Your task to perform on an android device: turn on notifications settings in the gmail app Image 0: 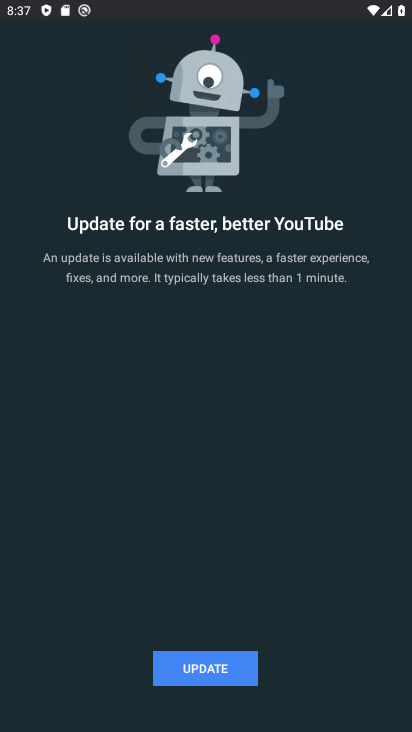
Step 0: press back button
Your task to perform on an android device: turn on notifications settings in the gmail app Image 1: 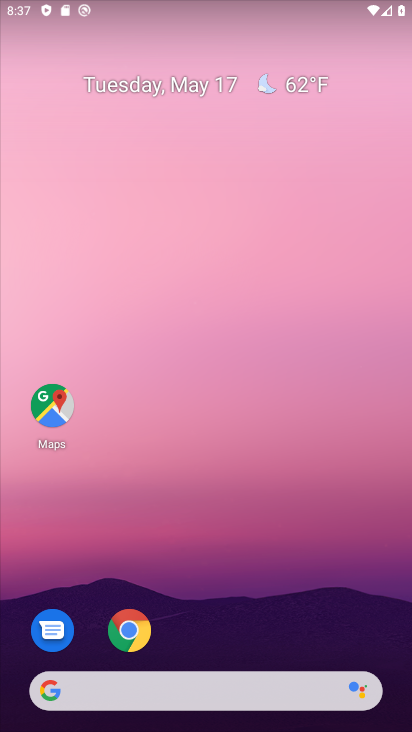
Step 1: drag from (185, 662) to (336, 212)
Your task to perform on an android device: turn on notifications settings in the gmail app Image 2: 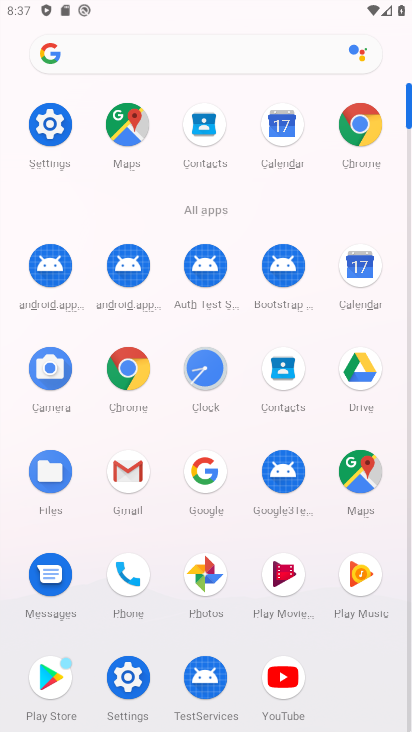
Step 2: drag from (161, 590) to (225, 429)
Your task to perform on an android device: turn on notifications settings in the gmail app Image 3: 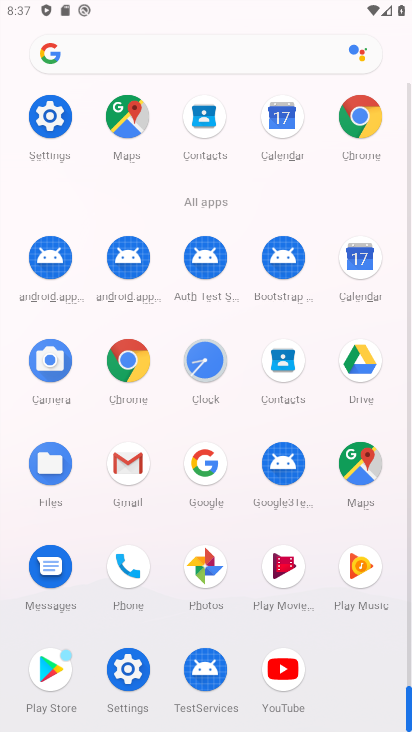
Step 3: click (137, 472)
Your task to perform on an android device: turn on notifications settings in the gmail app Image 4: 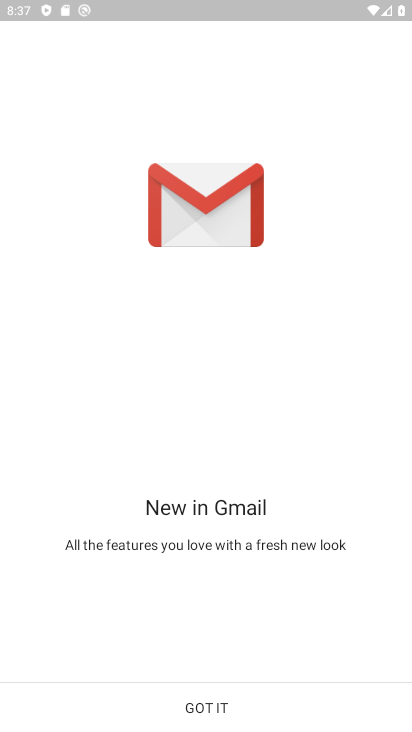
Step 4: click (211, 717)
Your task to perform on an android device: turn on notifications settings in the gmail app Image 5: 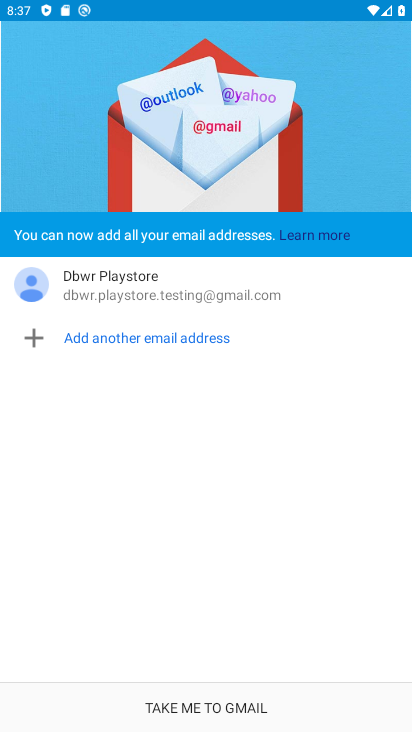
Step 5: click (211, 717)
Your task to perform on an android device: turn on notifications settings in the gmail app Image 6: 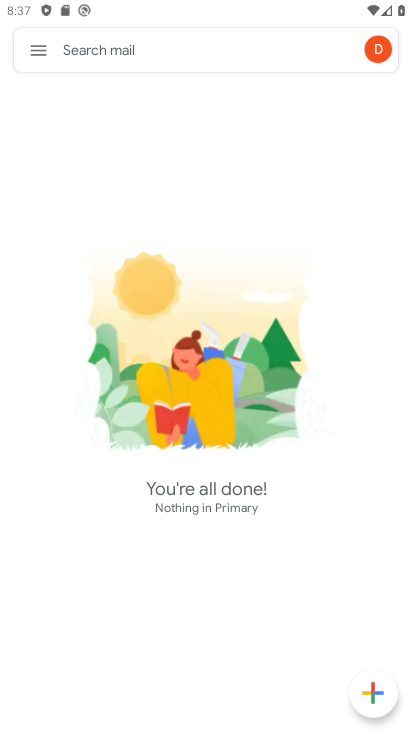
Step 6: click (48, 51)
Your task to perform on an android device: turn on notifications settings in the gmail app Image 7: 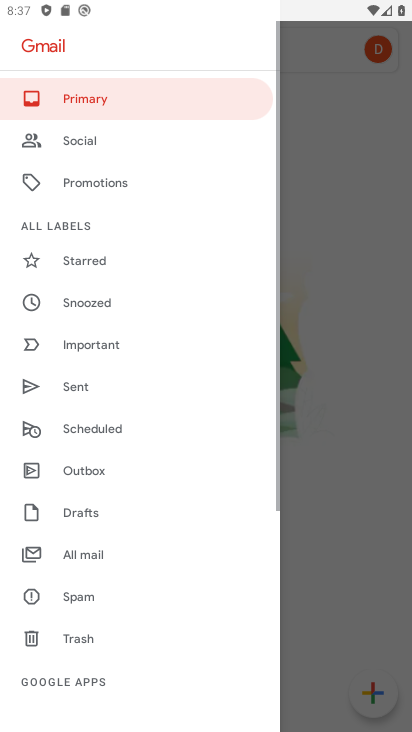
Step 7: drag from (140, 616) to (216, 335)
Your task to perform on an android device: turn on notifications settings in the gmail app Image 8: 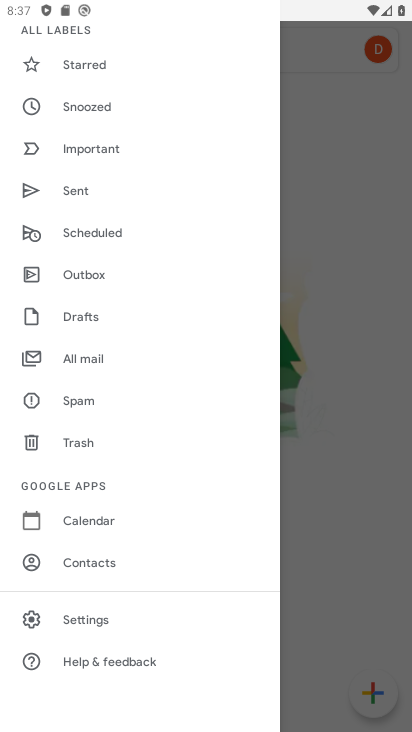
Step 8: click (121, 630)
Your task to perform on an android device: turn on notifications settings in the gmail app Image 9: 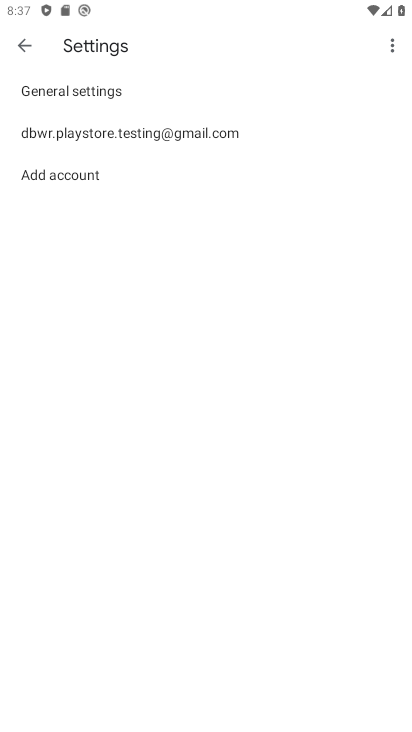
Step 9: click (238, 149)
Your task to perform on an android device: turn on notifications settings in the gmail app Image 10: 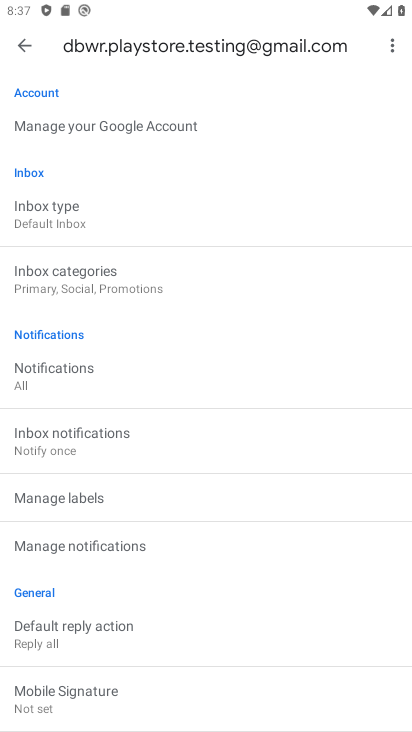
Step 10: drag from (196, 535) to (310, 199)
Your task to perform on an android device: turn on notifications settings in the gmail app Image 11: 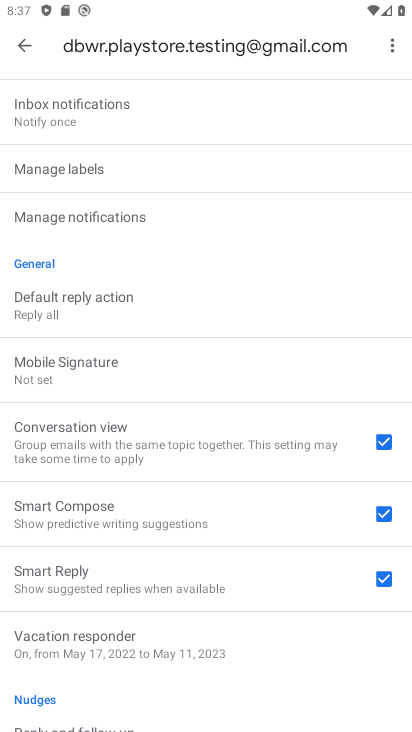
Step 11: click (193, 226)
Your task to perform on an android device: turn on notifications settings in the gmail app Image 12: 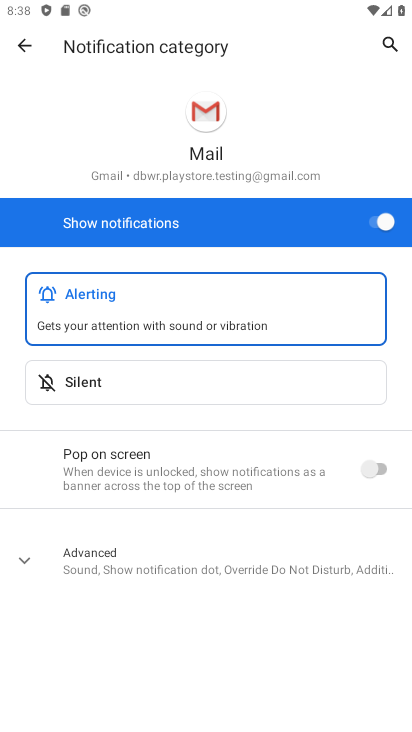
Step 12: task complete